Your task to perform on an android device: Open battery settings Image 0: 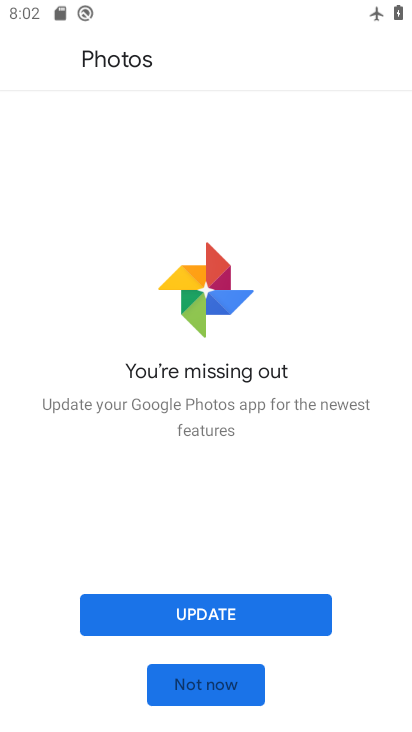
Step 0: press home button
Your task to perform on an android device: Open battery settings Image 1: 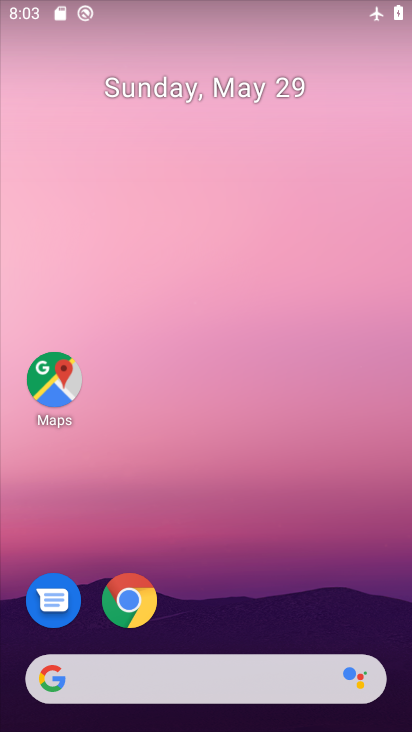
Step 1: drag from (203, 620) to (202, 18)
Your task to perform on an android device: Open battery settings Image 2: 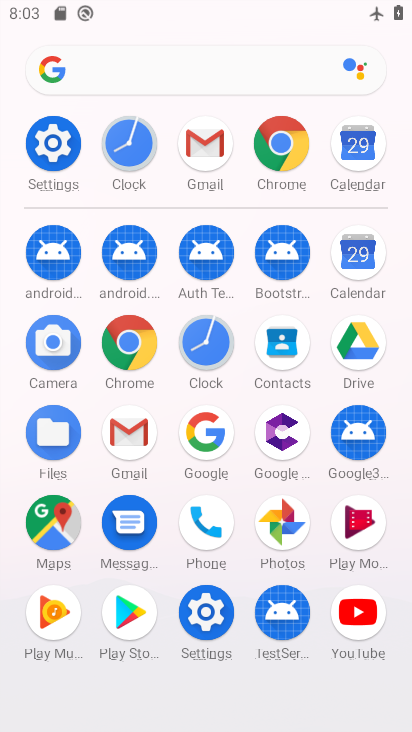
Step 2: click (56, 143)
Your task to perform on an android device: Open battery settings Image 3: 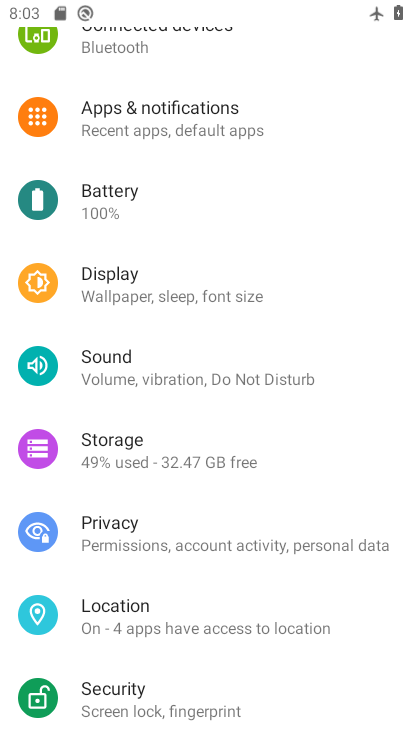
Step 3: click (127, 207)
Your task to perform on an android device: Open battery settings Image 4: 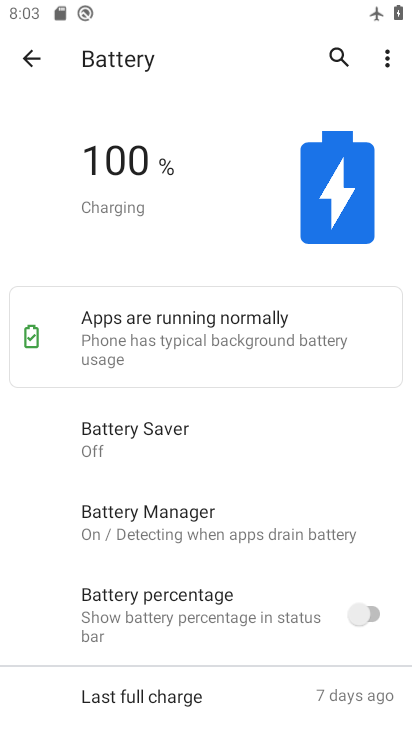
Step 4: task complete